Your task to perform on an android device: Go to ESPN.com Image 0: 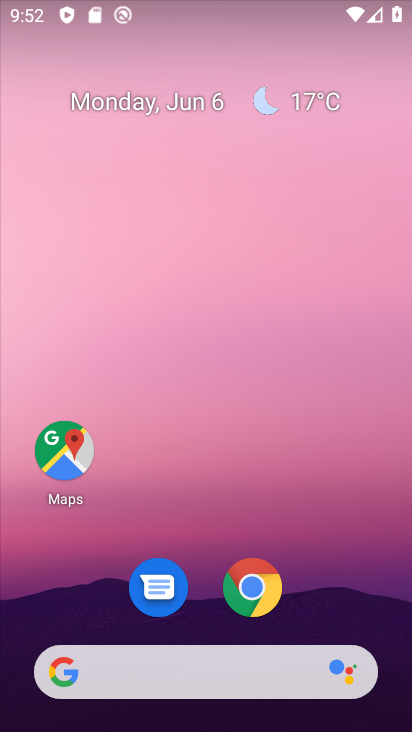
Step 0: click (263, 607)
Your task to perform on an android device: Go to ESPN.com Image 1: 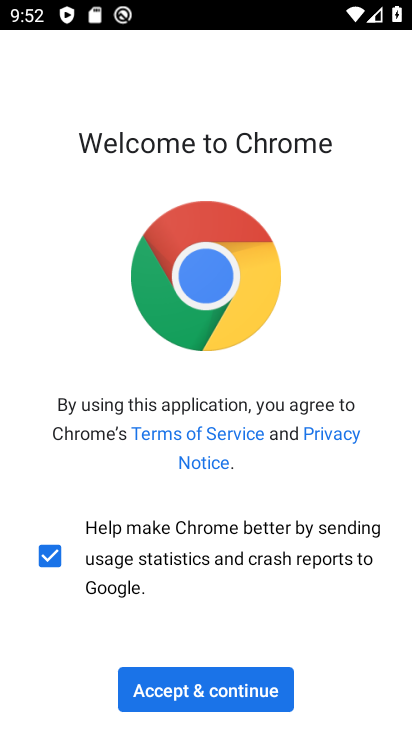
Step 1: click (216, 680)
Your task to perform on an android device: Go to ESPN.com Image 2: 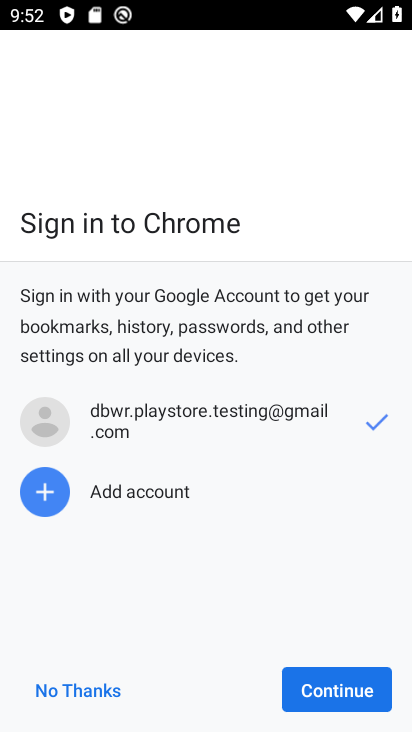
Step 2: click (326, 703)
Your task to perform on an android device: Go to ESPN.com Image 3: 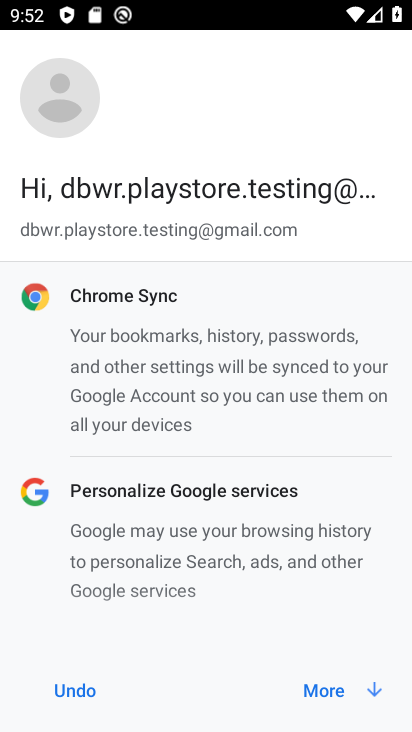
Step 3: click (326, 703)
Your task to perform on an android device: Go to ESPN.com Image 4: 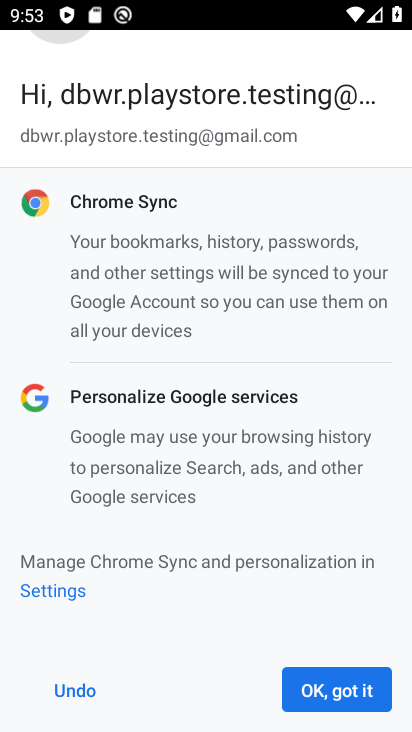
Step 4: click (326, 703)
Your task to perform on an android device: Go to ESPN.com Image 5: 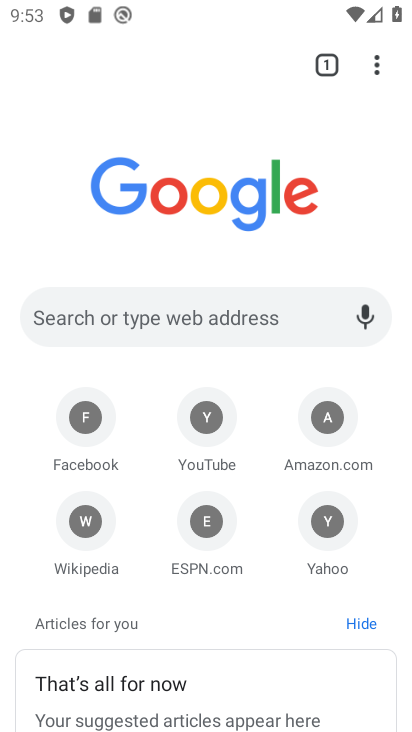
Step 5: click (218, 531)
Your task to perform on an android device: Go to ESPN.com Image 6: 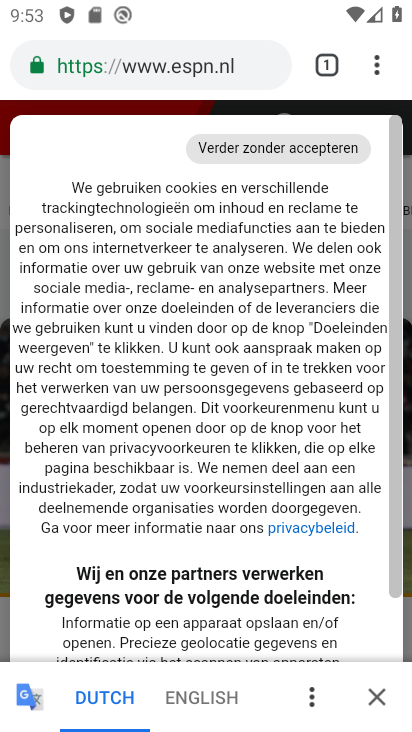
Step 6: task complete